Your task to perform on an android device: delete location history Image 0: 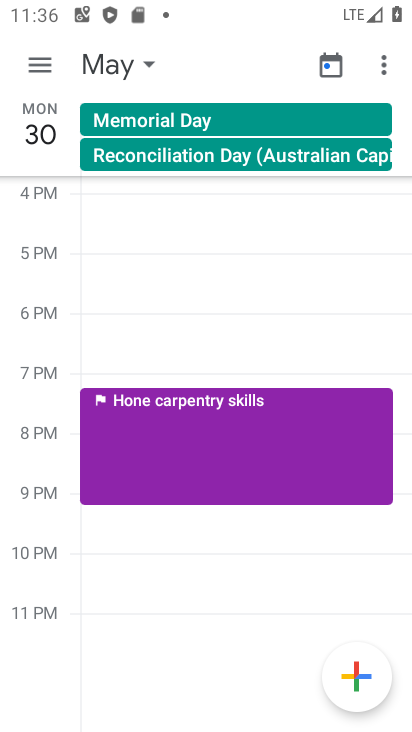
Step 0: press home button
Your task to perform on an android device: delete location history Image 1: 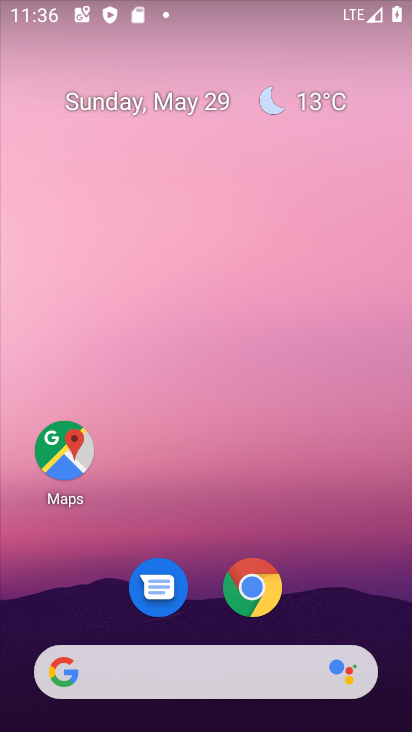
Step 1: drag from (323, 540) to (306, 150)
Your task to perform on an android device: delete location history Image 2: 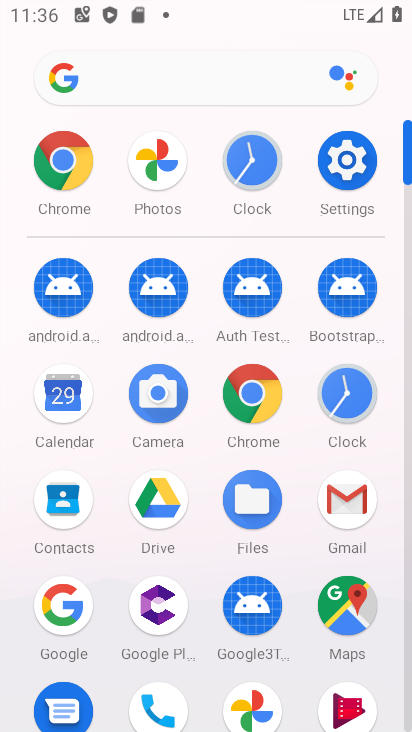
Step 2: click (342, 607)
Your task to perform on an android device: delete location history Image 3: 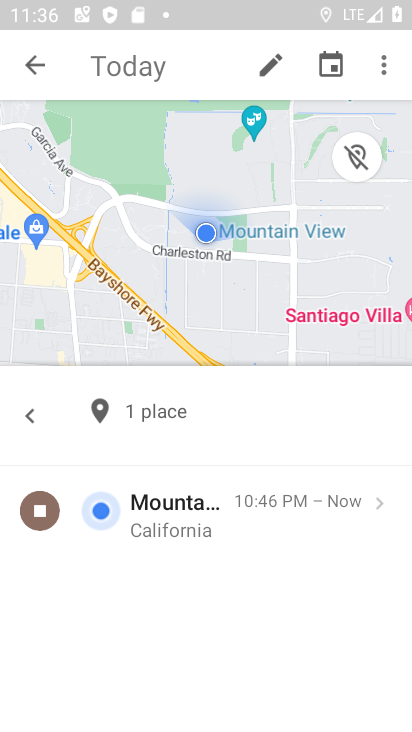
Step 3: click (35, 47)
Your task to perform on an android device: delete location history Image 4: 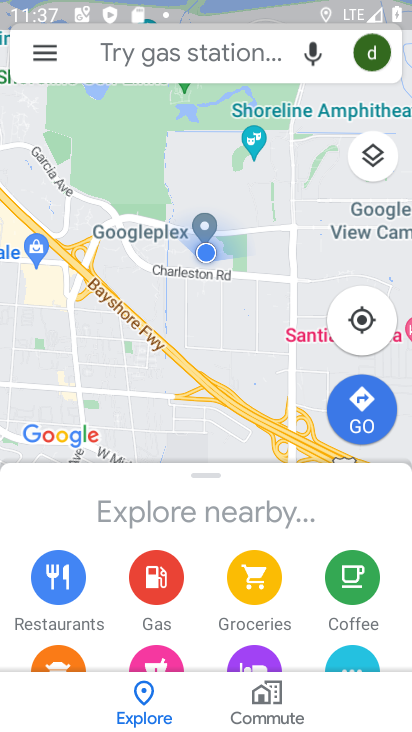
Step 4: click (36, 47)
Your task to perform on an android device: delete location history Image 5: 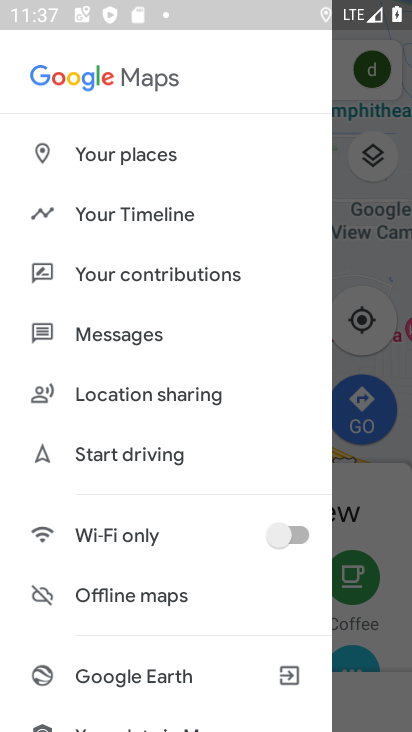
Step 5: drag from (171, 593) to (255, 105)
Your task to perform on an android device: delete location history Image 6: 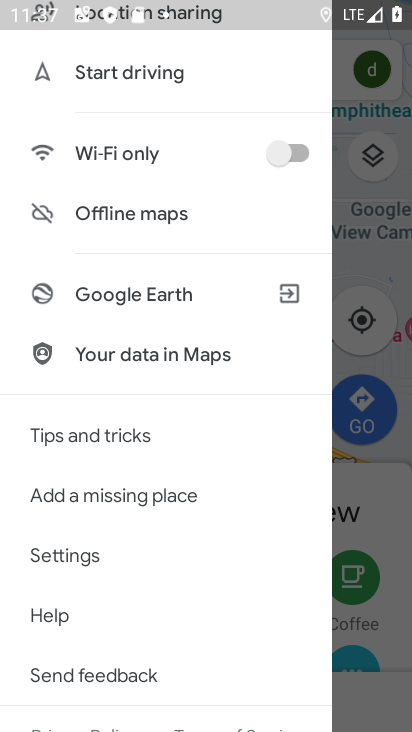
Step 6: click (38, 559)
Your task to perform on an android device: delete location history Image 7: 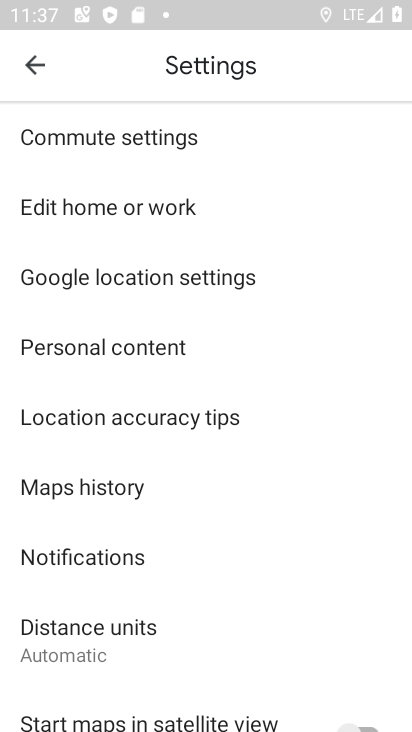
Step 7: click (118, 497)
Your task to perform on an android device: delete location history Image 8: 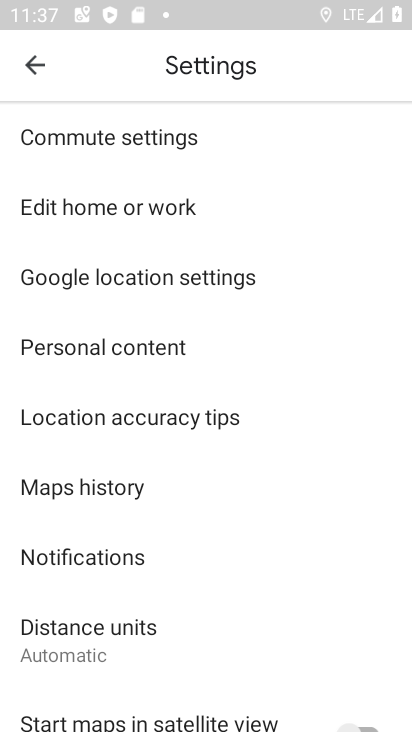
Step 8: click (87, 480)
Your task to perform on an android device: delete location history Image 9: 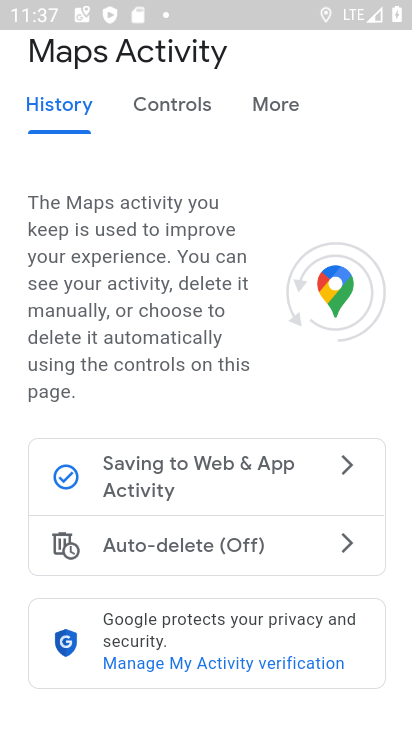
Step 9: drag from (290, 575) to (320, 97)
Your task to perform on an android device: delete location history Image 10: 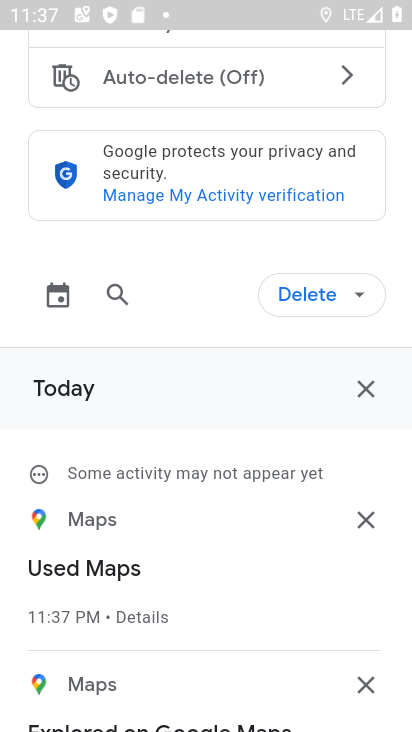
Step 10: click (369, 289)
Your task to perform on an android device: delete location history Image 11: 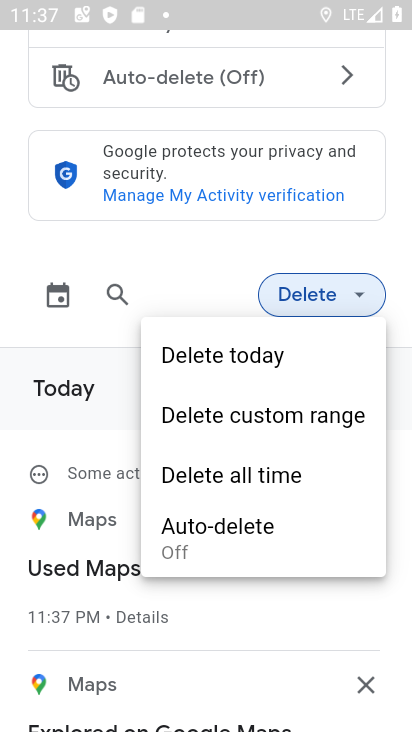
Step 11: click (242, 472)
Your task to perform on an android device: delete location history Image 12: 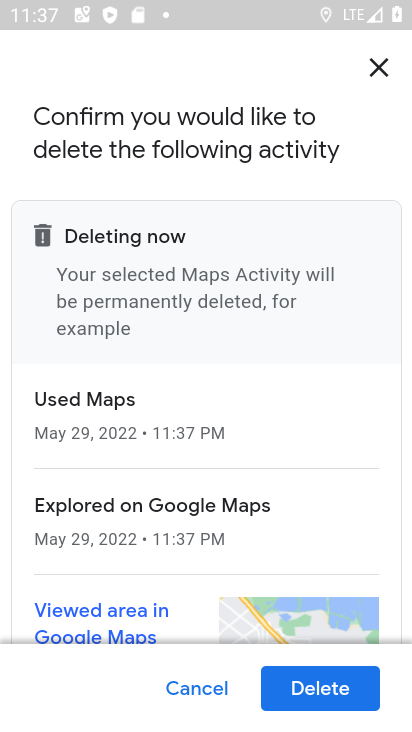
Step 12: click (322, 688)
Your task to perform on an android device: delete location history Image 13: 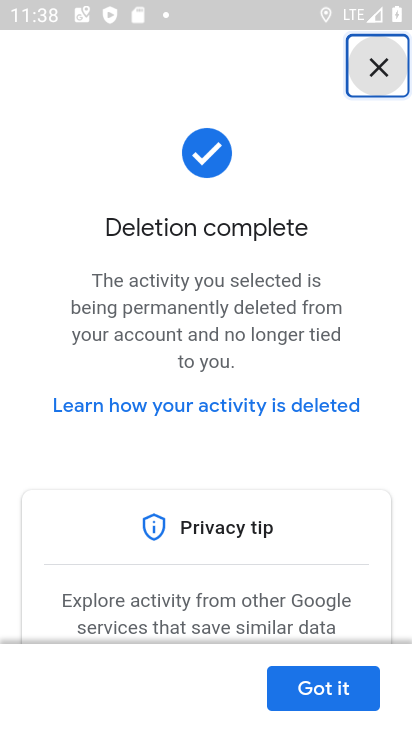
Step 13: task complete